Your task to perform on an android device: change the clock display to digital Image 0: 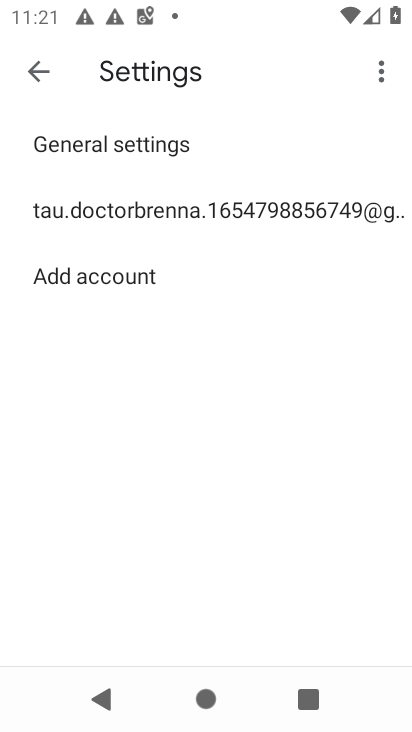
Step 0: press home button
Your task to perform on an android device: change the clock display to digital Image 1: 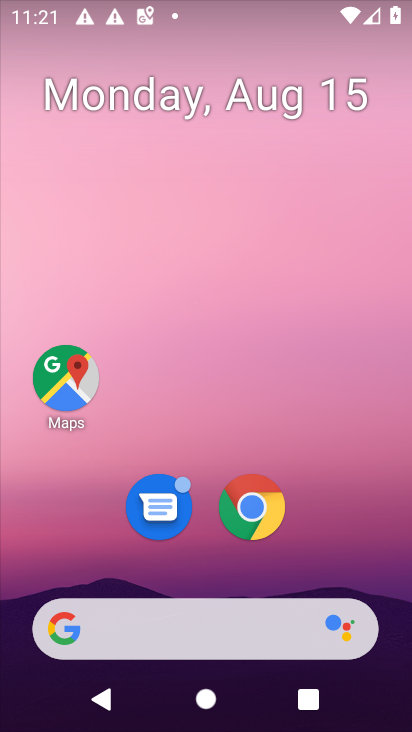
Step 1: drag from (218, 574) to (218, 32)
Your task to perform on an android device: change the clock display to digital Image 2: 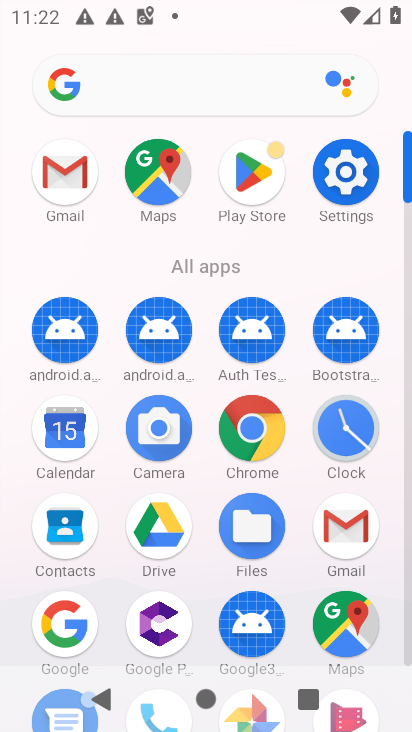
Step 2: click (346, 434)
Your task to perform on an android device: change the clock display to digital Image 3: 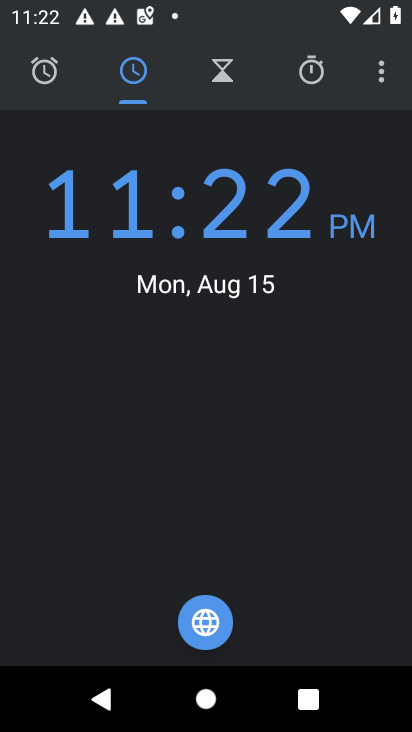
Step 3: click (383, 70)
Your task to perform on an android device: change the clock display to digital Image 4: 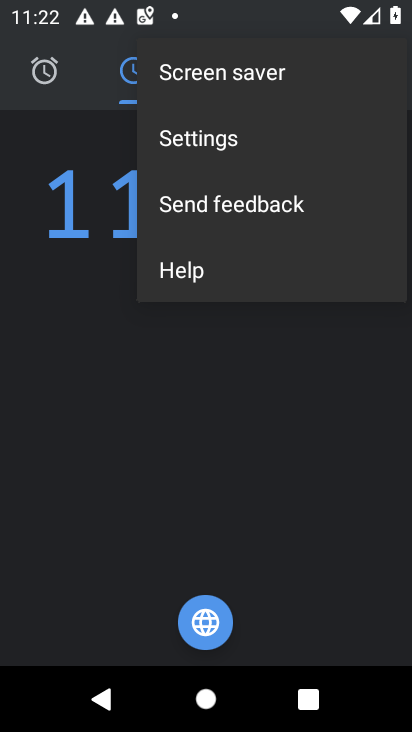
Step 4: click (211, 139)
Your task to perform on an android device: change the clock display to digital Image 5: 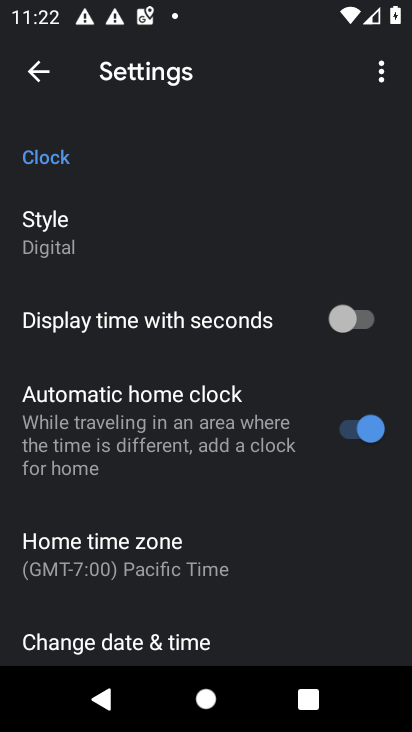
Step 5: click (52, 223)
Your task to perform on an android device: change the clock display to digital Image 6: 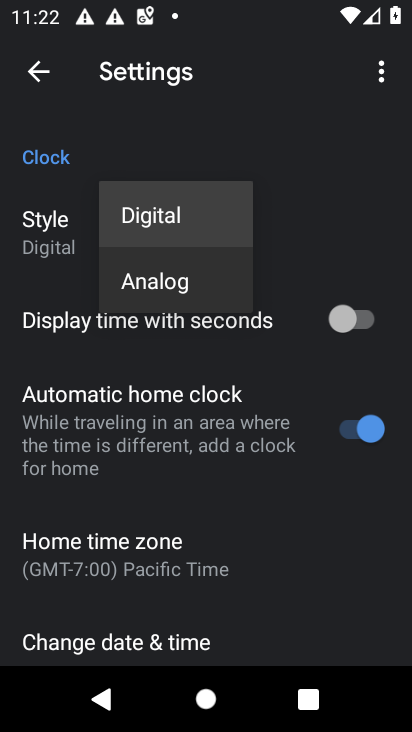
Step 6: click (137, 217)
Your task to perform on an android device: change the clock display to digital Image 7: 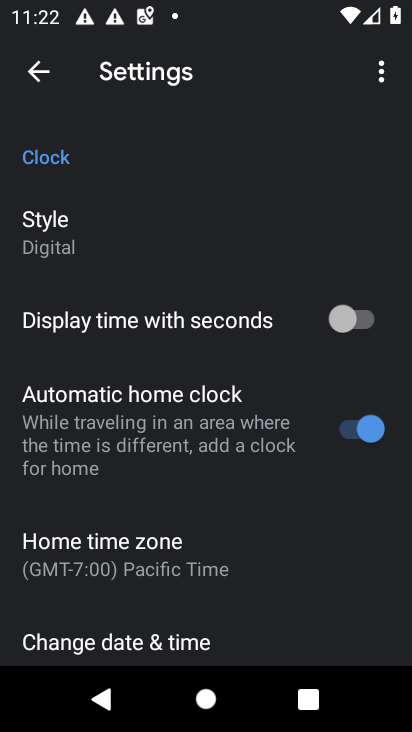
Step 7: task complete